Your task to perform on an android device: change the upload size in google photos Image 0: 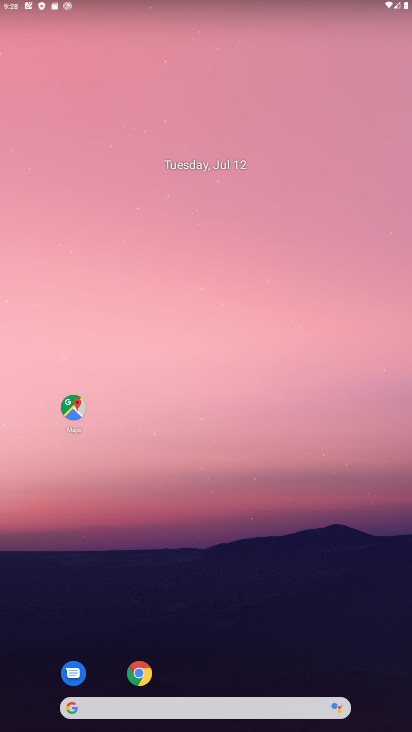
Step 0: drag from (230, 507) to (287, 36)
Your task to perform on an android device: change the upload size in google photos Image 1: 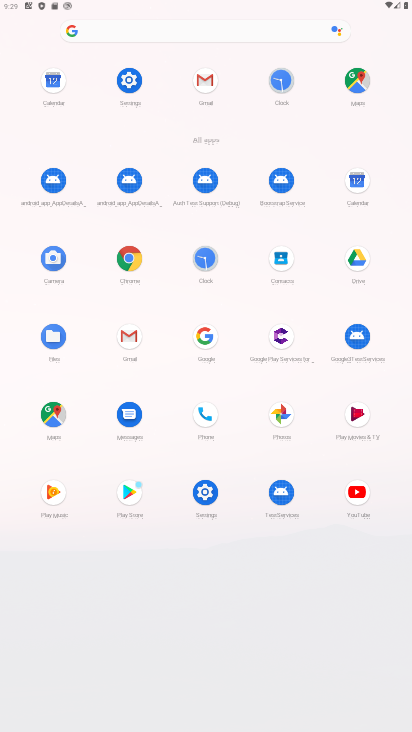
Step 1: click (282, 422)
Your task to perform on an android device: change the upload size in google photos Image 2: 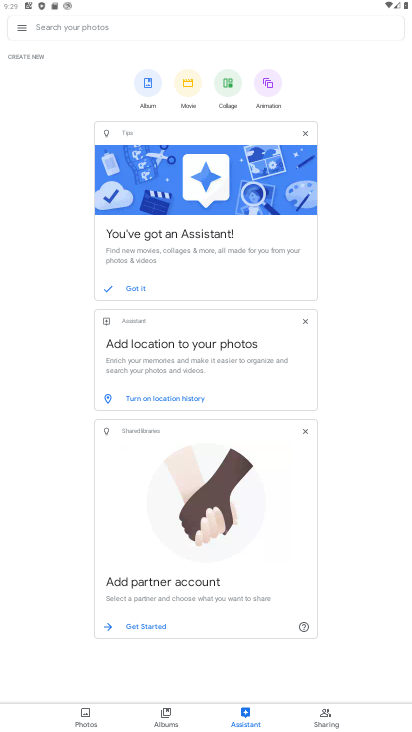
Step 2: click (26, 24)
Your task to perform on an android device: change the upload size in google photos Image 3: 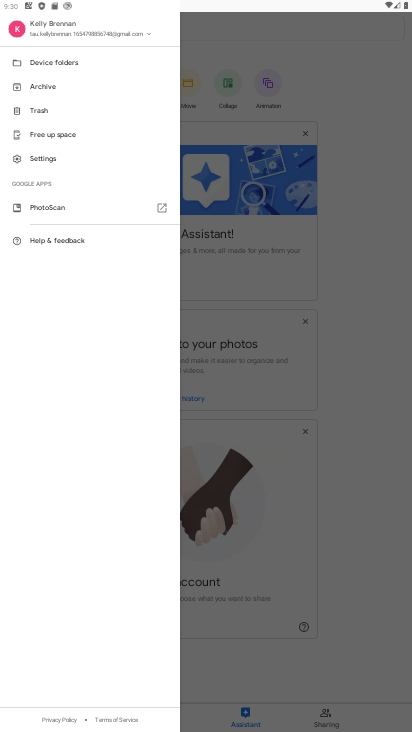
Step 3: click (47, 159)
Your task to perform on an android device: change the upload size in google photos Image 4: 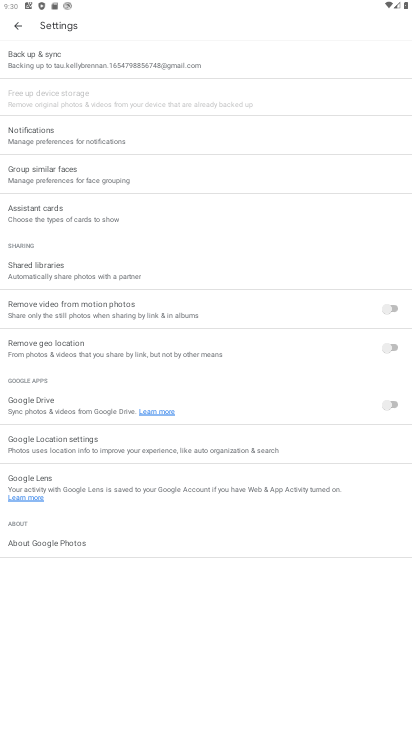
Step 4: click (156, 67)
Your task to perform on an android device: change the upload size in google photos Image 5: 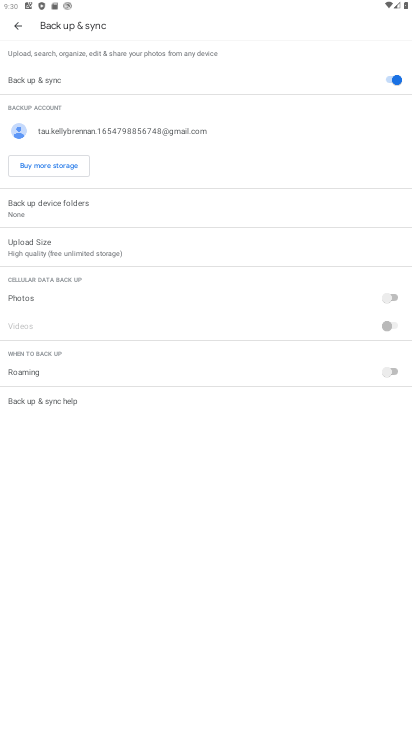
Step 5: click (42, 249)
Your task to perform on an android device: change the upload size in google photos Image 6: 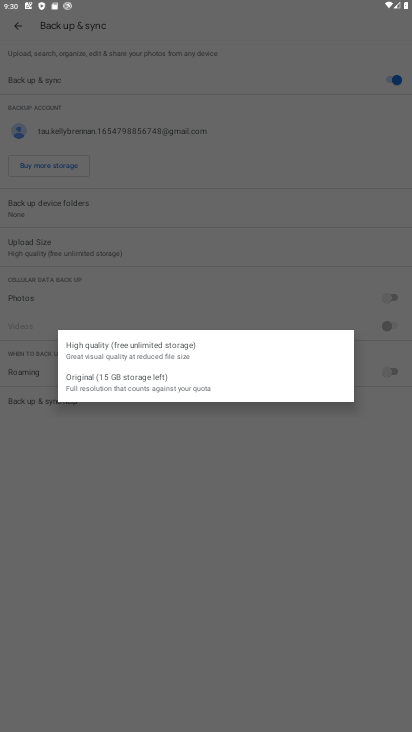
Step 6: click (95, 390)
Your task to perform on an android device: change the upload size in google photos Image 7: 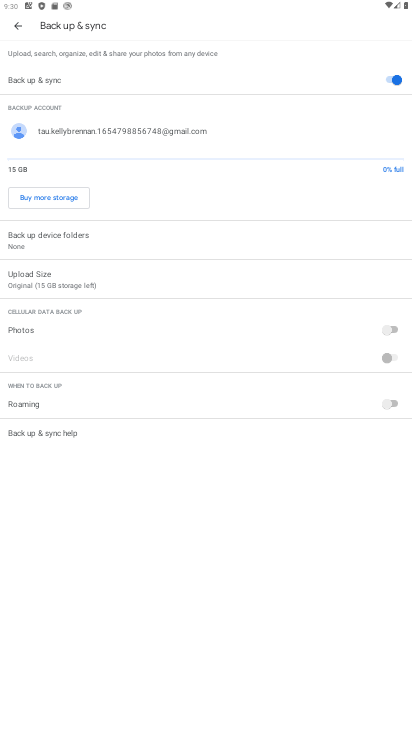
Step 7: task complete